Your task to perform on an android device: open the mobile data screen to see how much data has been used Image 0: 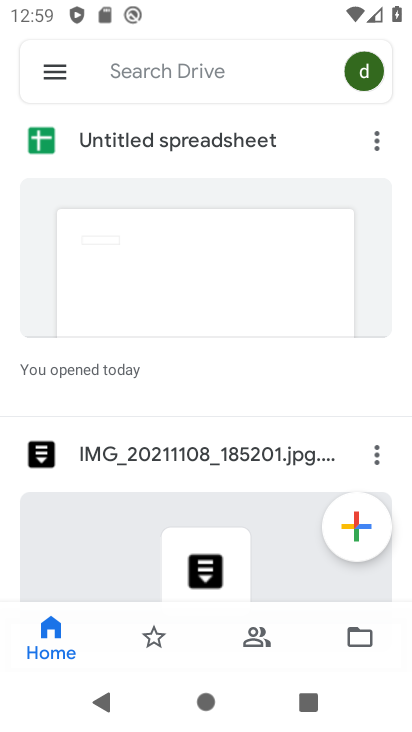
Step 0: drag from (383, 7) to (398, 559)
Your task to perform on an android device: open the mobile data screen to see how much data has been used Image 1: 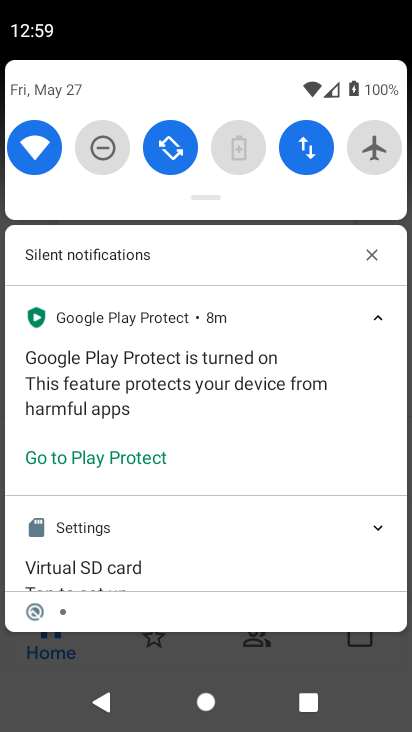
Step 1: click (304, 145)
Your task to perform on an android device: open the mobile data screen to see how much data has been used Image 2: 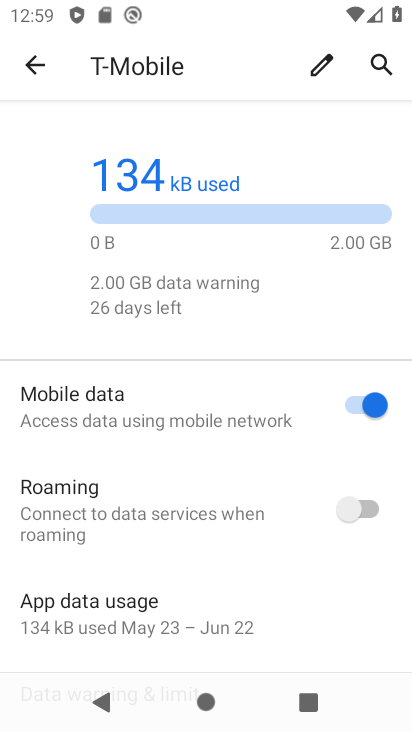
Step 2: task complete